Your task to perform on an android device: What's the weather going to be tomorrow? Image 0: 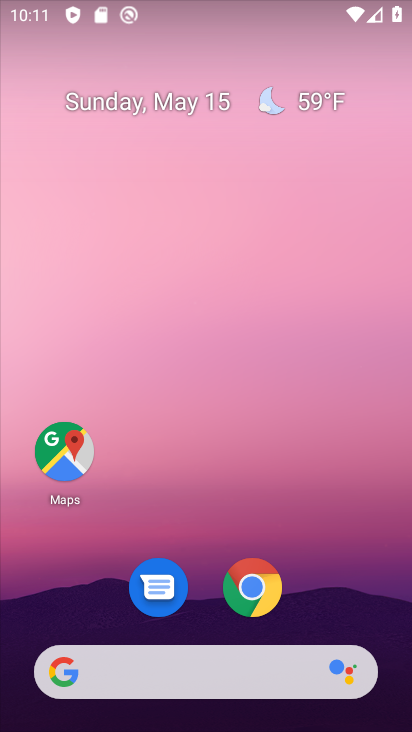
Step 0: click (232, 119)
Your task to perform on an android device: What's the weather going to be tomorrow? Image 1: 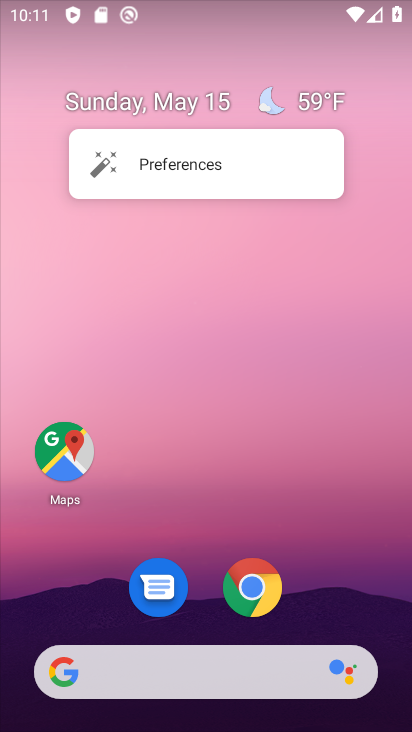
Step 1: click (327, 111)
Your task to perform on an android device: What's the weather going to be tomorrow? Image 2: 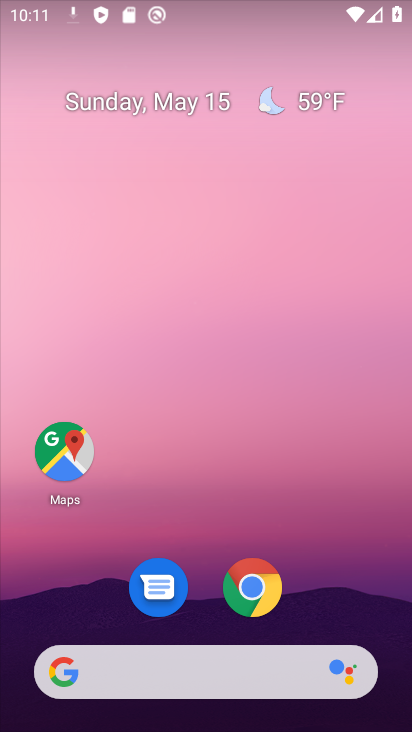
Step 2: click (302, 102)
Your task to perform on an android device: What's the weather going to be tomorrow? Image 3: 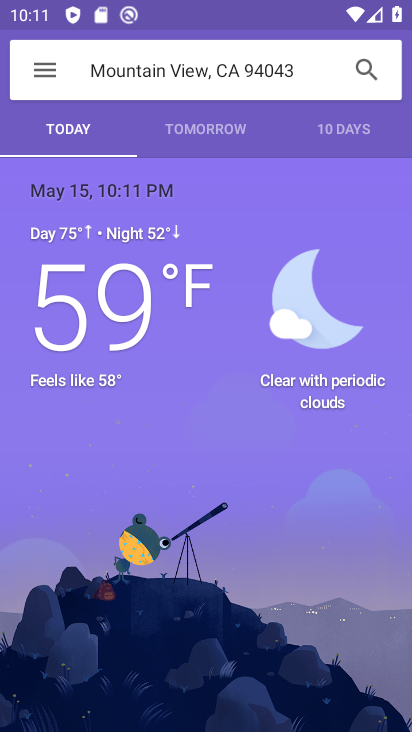
Step 3: click (209, 144)
Your task to perform on an android device: What's the weather going to be tomorrow? Image 4: 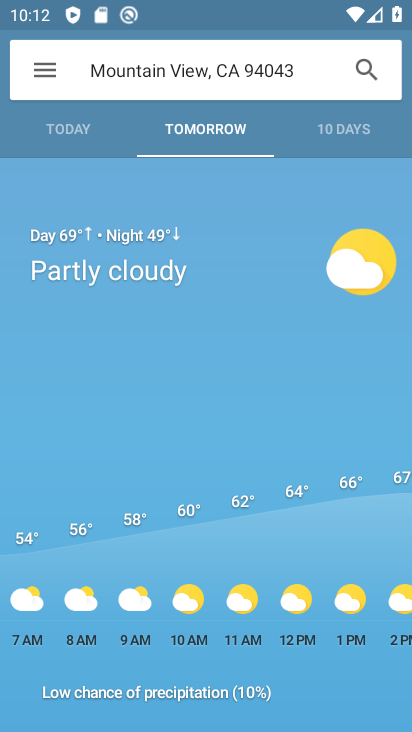
Step 4: task complete